Your task to perform on an android device: Open wifi settings Image 0: 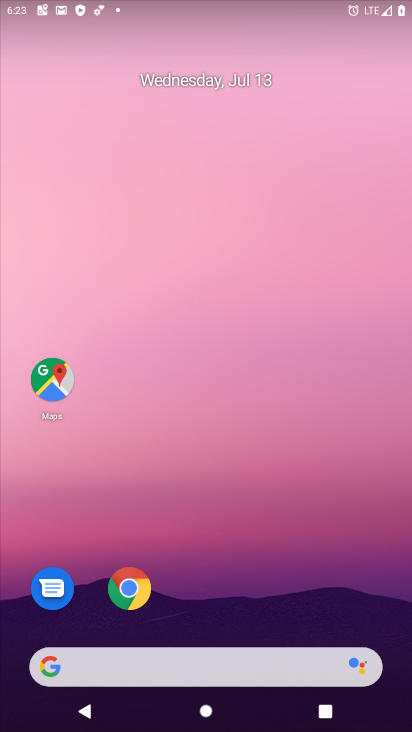
Step 0: drag from (220, 620) to (316, 85)
Your task to perform on an android device: Open wifi settings Image 1: 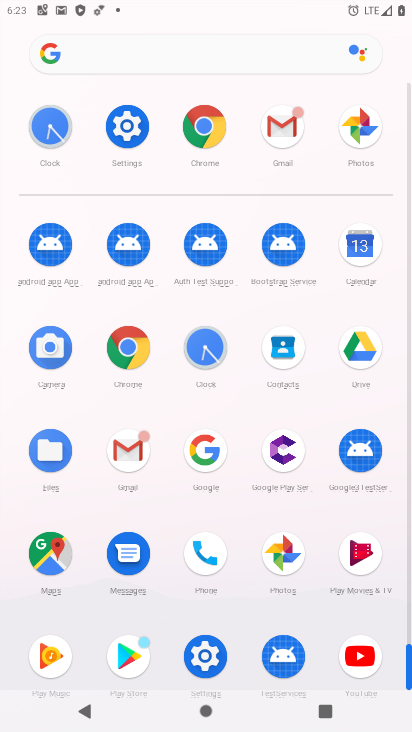
Step 1: click (131, 128)
Your task to perform on an android device: Open wifi settings Image 2: 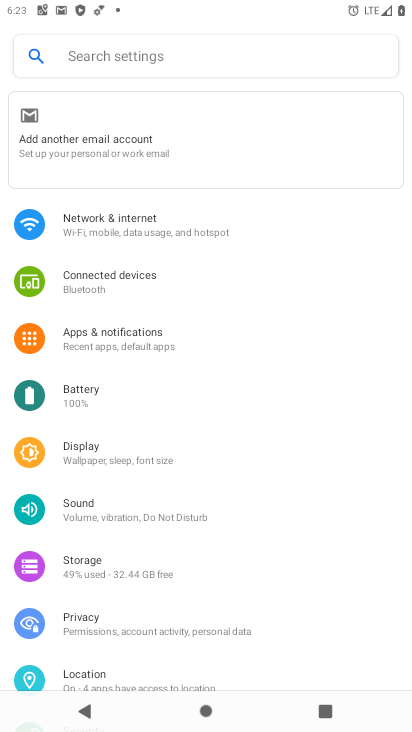
Step 2: click (95, 224)
Your task to perform on an android device: Open wifi settings Image 3: 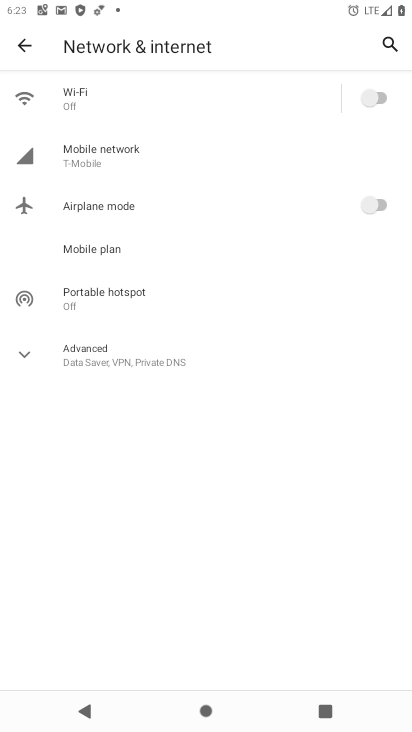
Step 3: click (293, 98)
Your task to perform on an android device: Open wifi settings Image 4: 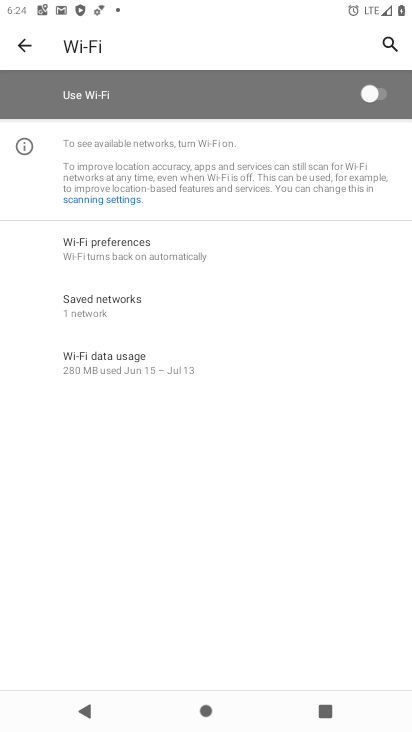
Step 4: task complete